Your task to perform on an android device: Turn off the flashlight Image 0: 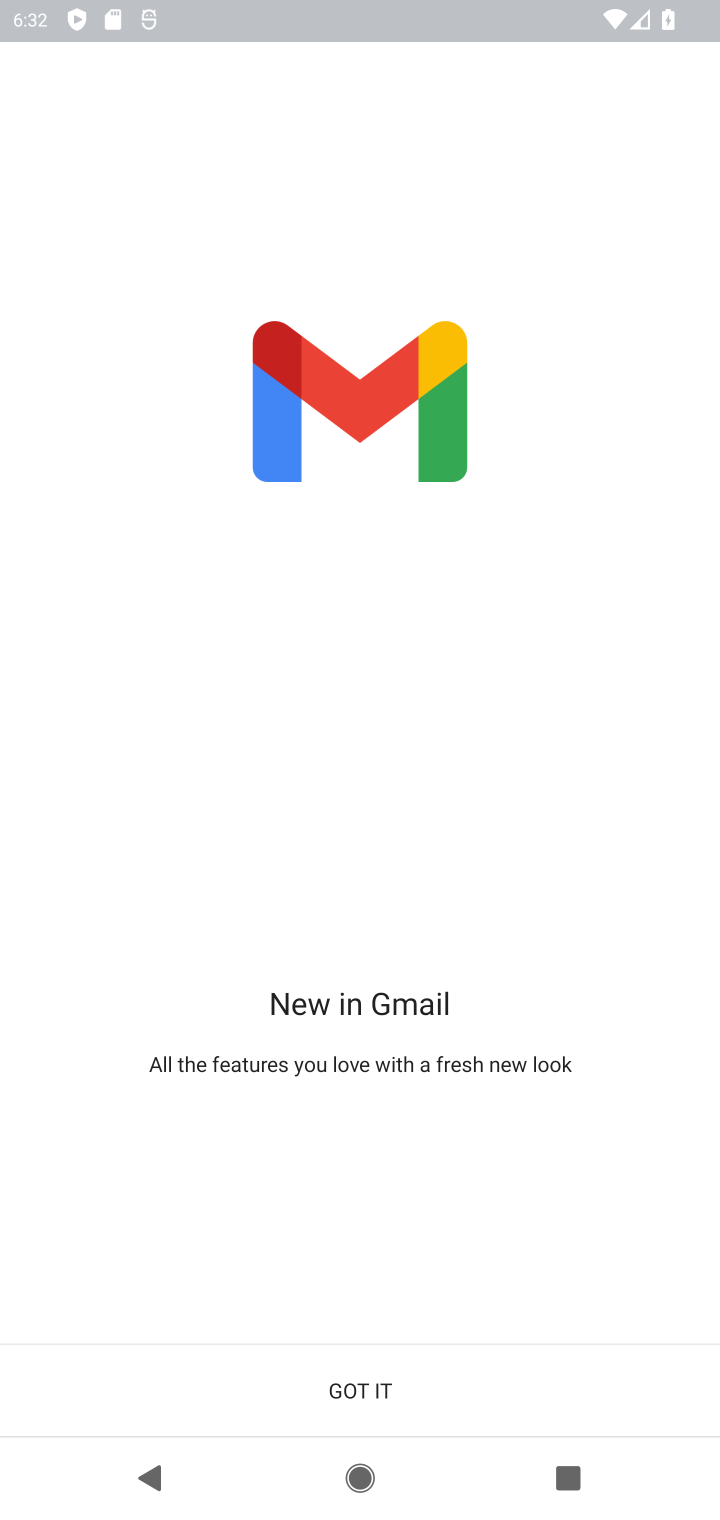
Step 0: click (462, 1358)
Your task to perform on an android device: Turn off the flashlight Image 1: 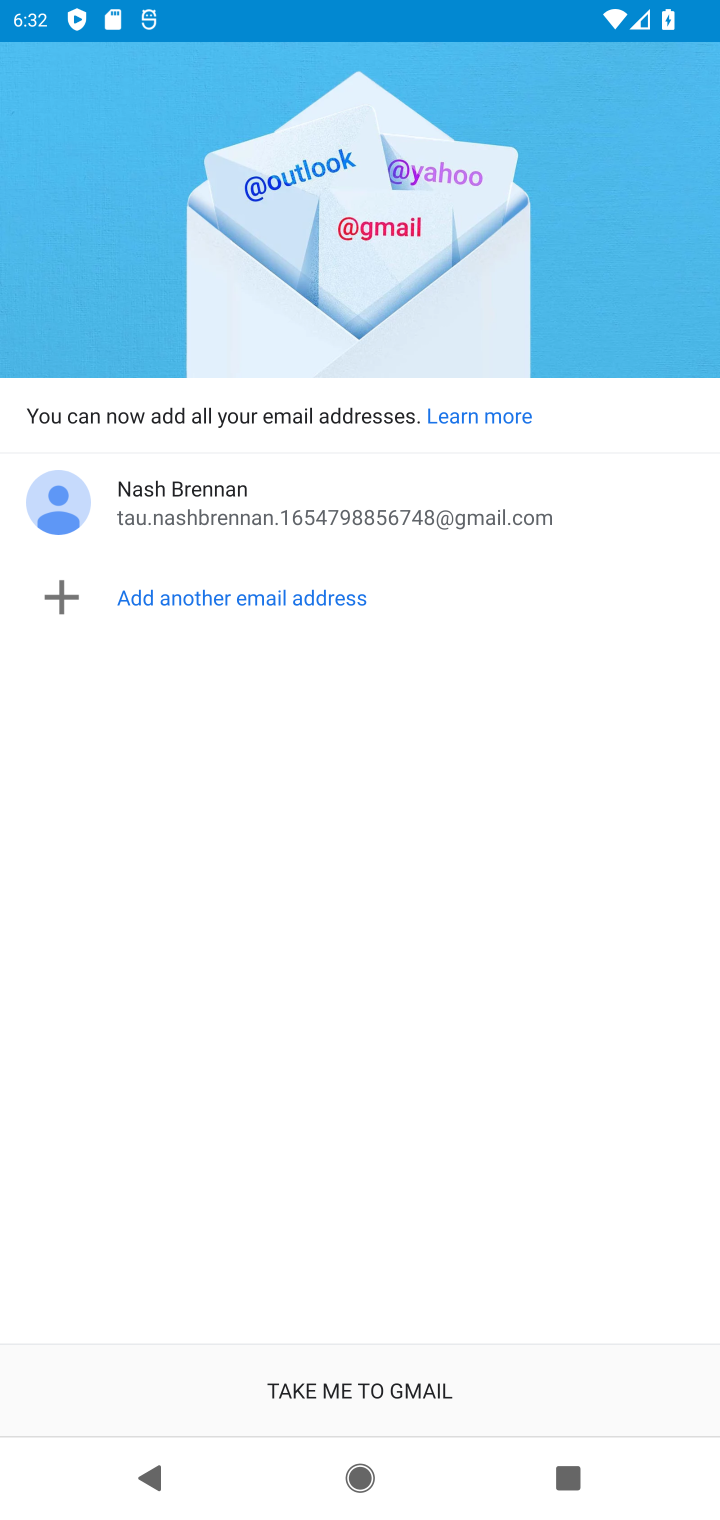
Step 1: click (477, 1378)
Your task to perform on an android device: Turn off the flashlight Image 2: 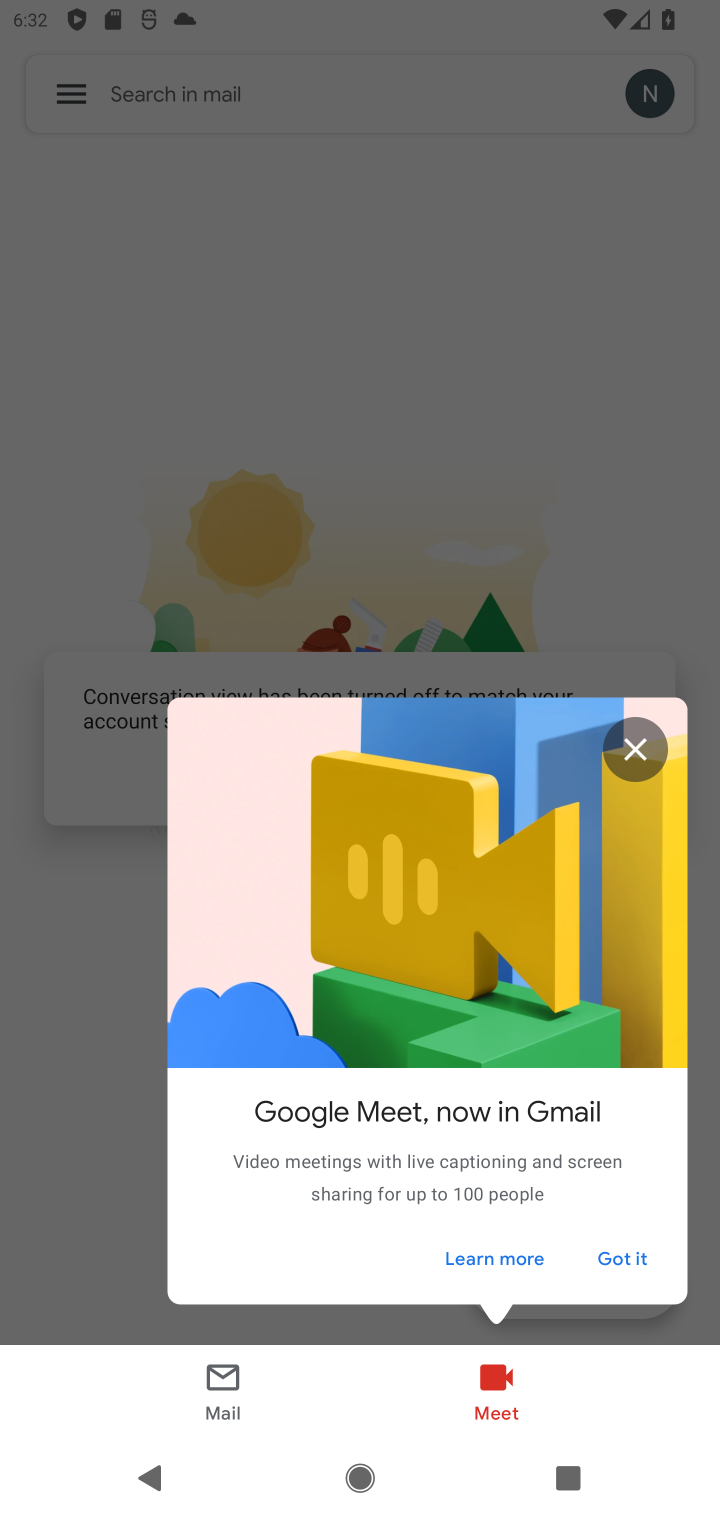
Step 2: click (642, 732)
Your task to perform on an android device: Turn off the flashlight Image 3: 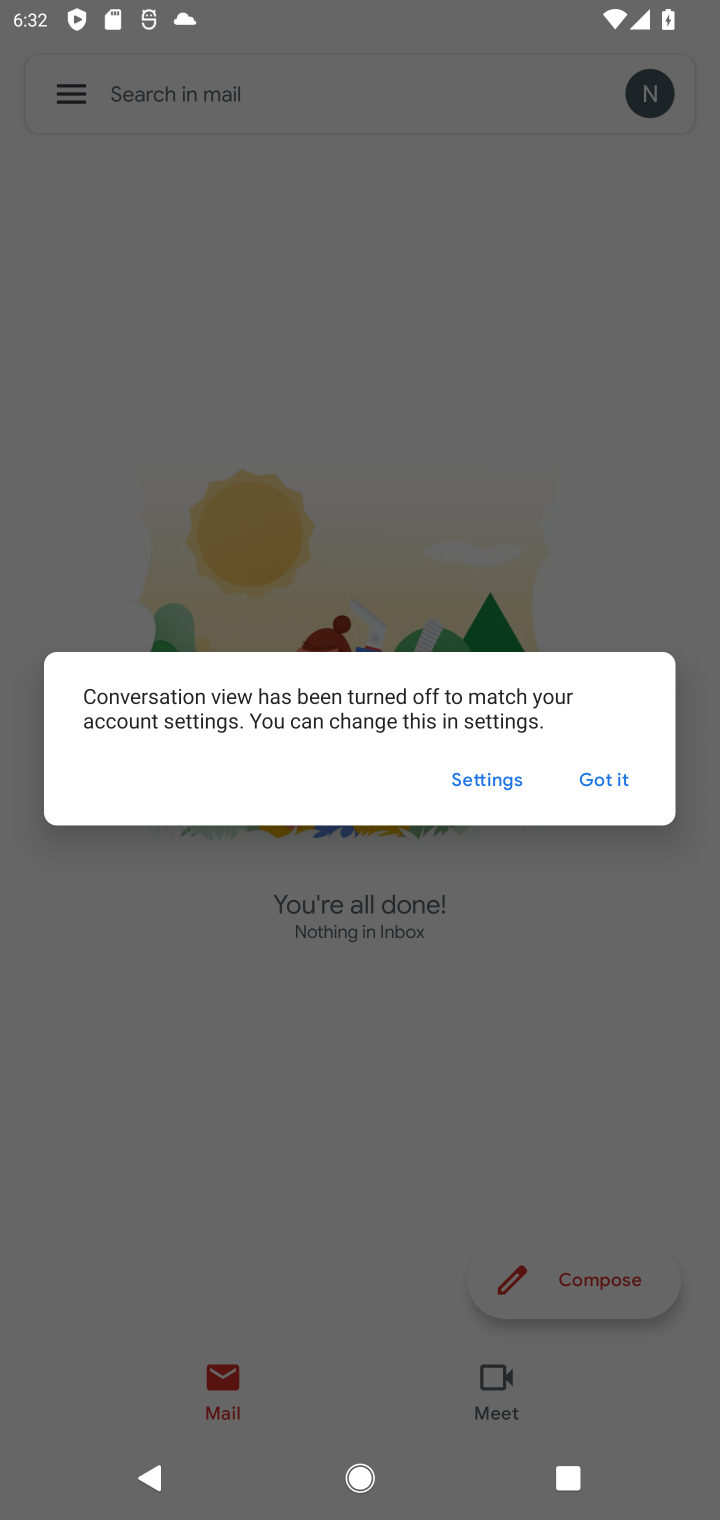
Step 3: drag from (543, 10) to (476, 1198)
Your task to perform on an android device: Turn off the flashlight Image 4: 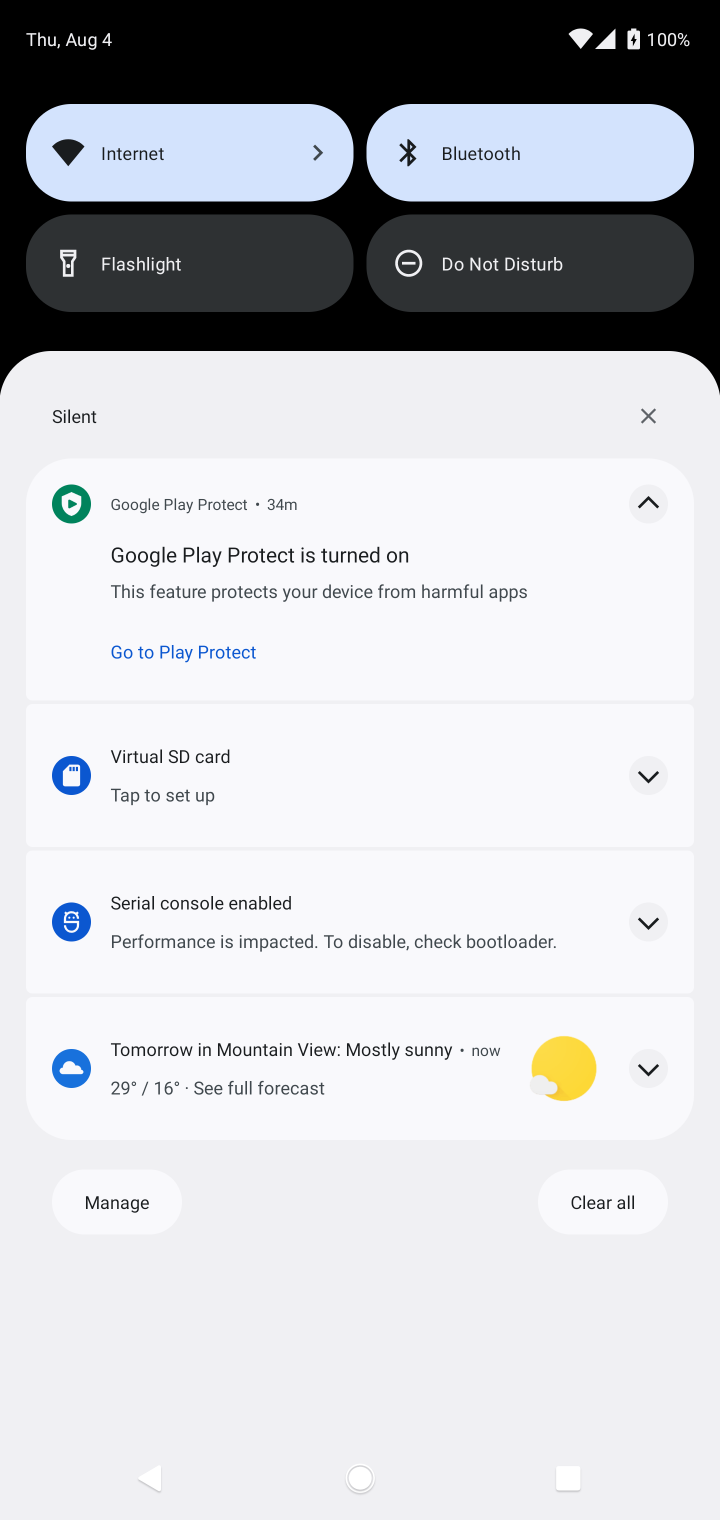
Step 4: click (208, 287)
Your task to perform on an android device: Turn off the flashlight Image 5: 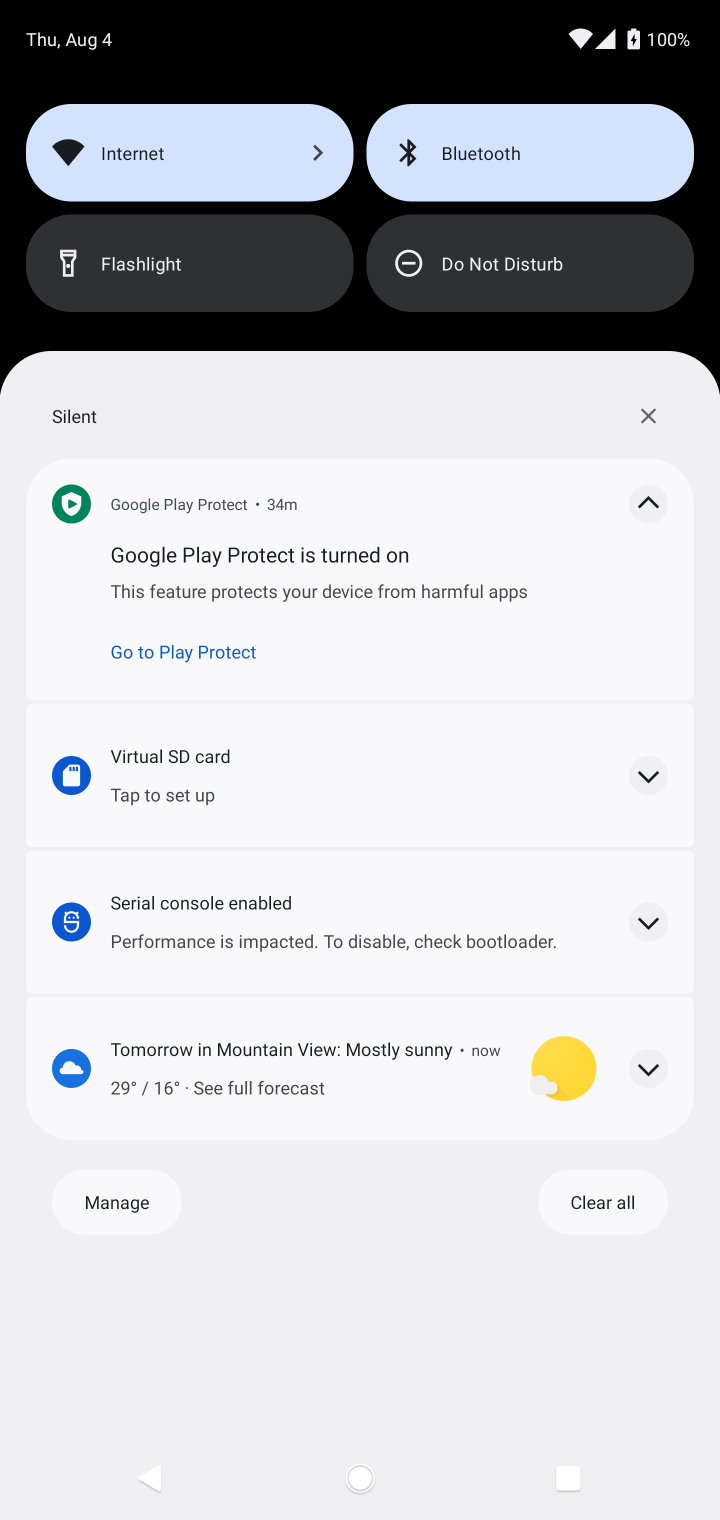
Step 5: task complete